Your task to perform on an android device: Go to Yahoo.com Image 0: 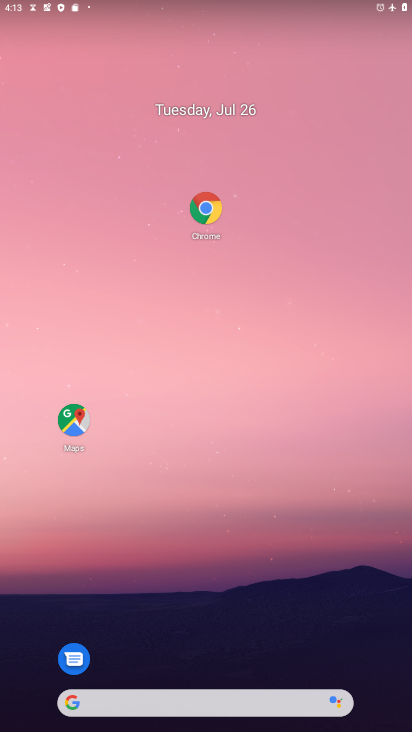
Step 0: click (211, 219)
Your task to perform on an android device: Go to Yahoo.com Image 1: 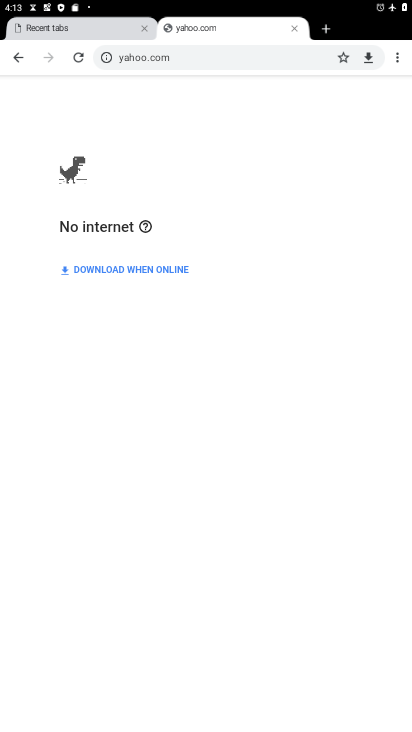
Step 1: press home button
Your task to perform on an android device: Go to Yahoo.com Image 2: 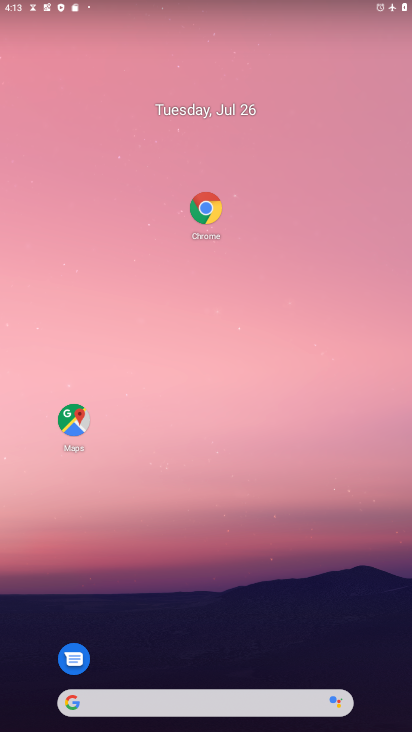
Step 2: drag from (185, 341) to (202, 22)
Your task to perform on an android device: Go to Yahoo.com Image 3: 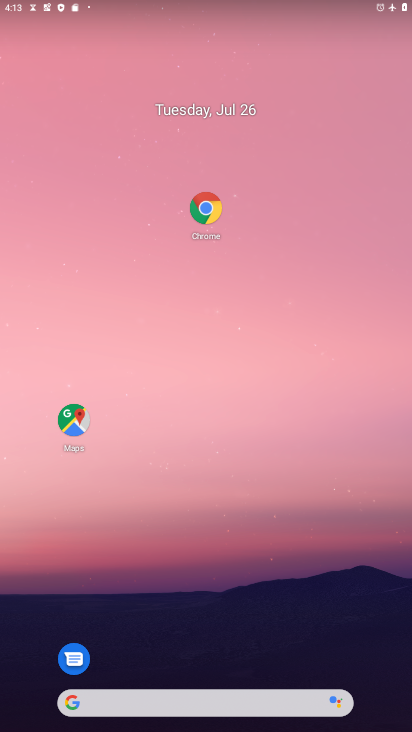
Step 3: drag from (187, 623) to (212, 49)
Your task to perform on an android device: Go to Yahoo.com Image 4: 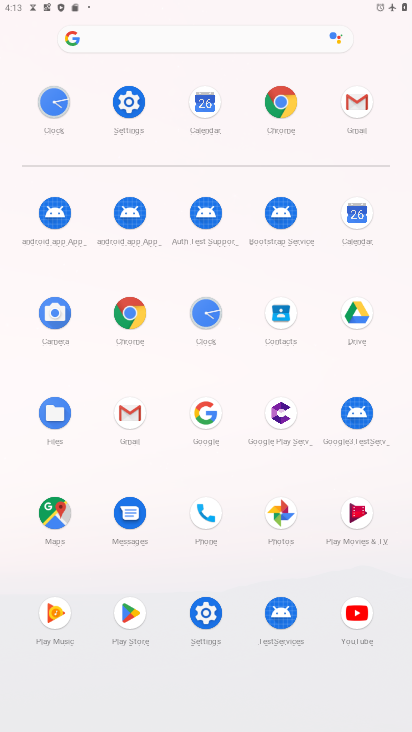
Step 4: click (132, 116)
Your task to perform on an android device: Go to Yahoo.com Image 5: 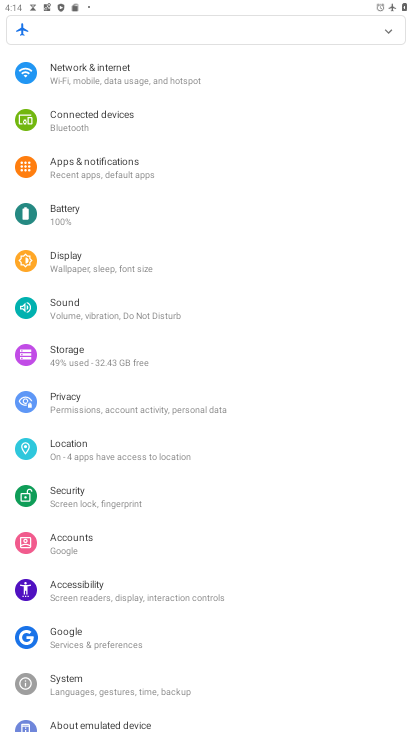
Step 5: click (388, 37)
Your task to perform on an android device: Go to Yahoo.com Image 6: 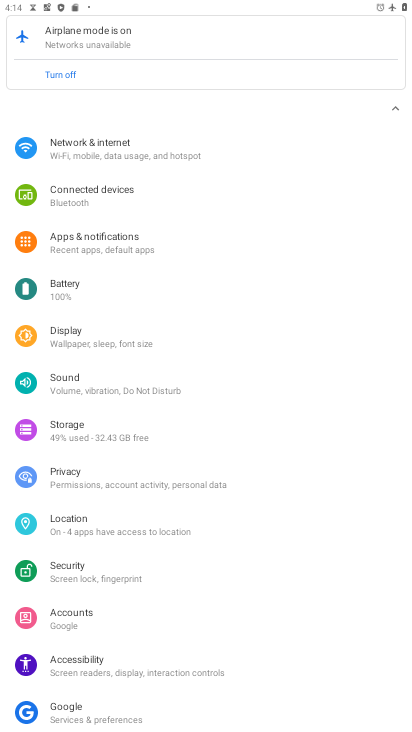
Step 6: click (66, 76)
Your task to perform on an android device: Go to Yahoo.com Image 7: 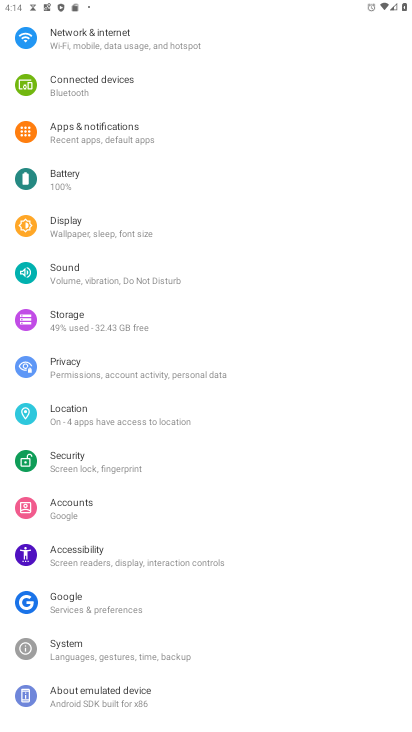
Step 7: press home button
Your task to perform on an android device: Go to Yahoo.com Image 8: 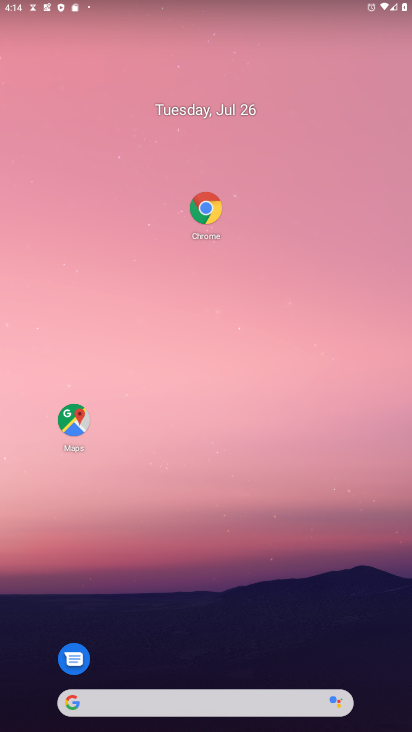
Step 8: click (205, 199)
Your task to perform on an android device: Go to Yahoo.com Image 9: 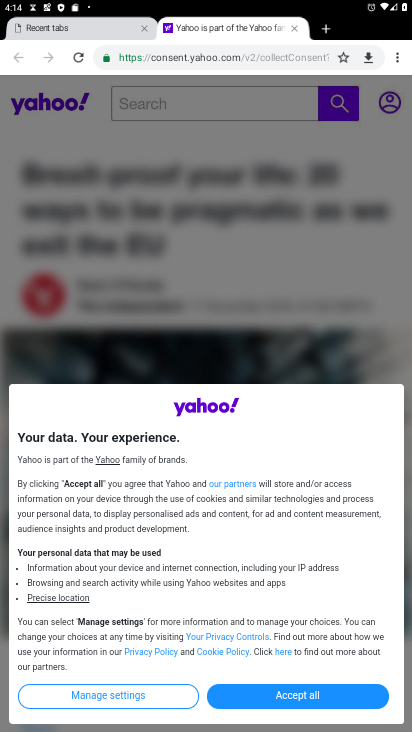
Step 9: task complete